Your task to perform on an android device: Do I have any events this weekend? Image 0: 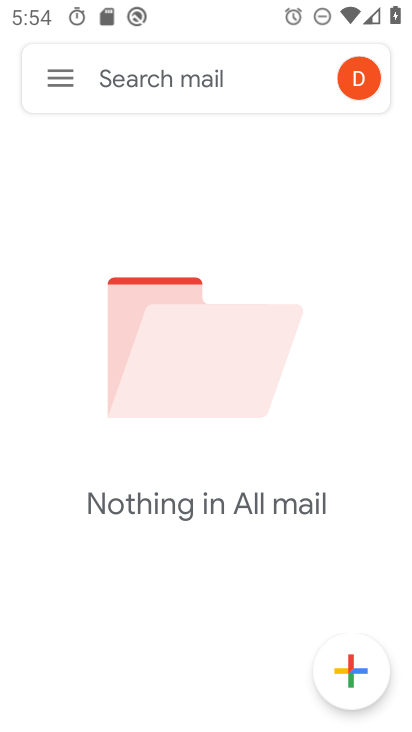
Step 0: press home button
Your task to perform on an android device: Do I have any events this weekend? Image 1: 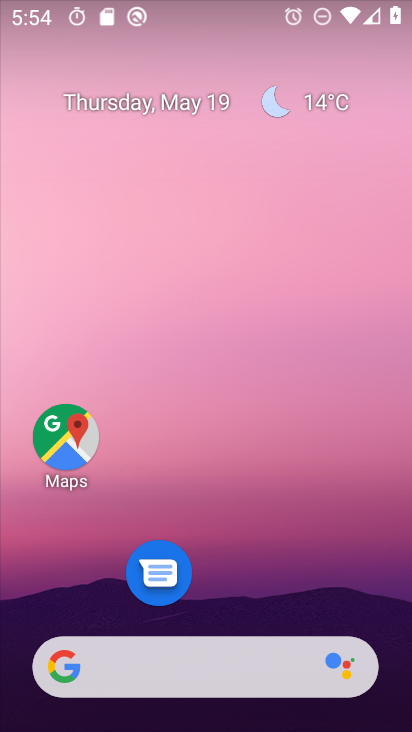
Step 1: drag from (249, 599) to (188, 225)
Your task to perform on an android device: Do I have any events this weekend? Image 2: 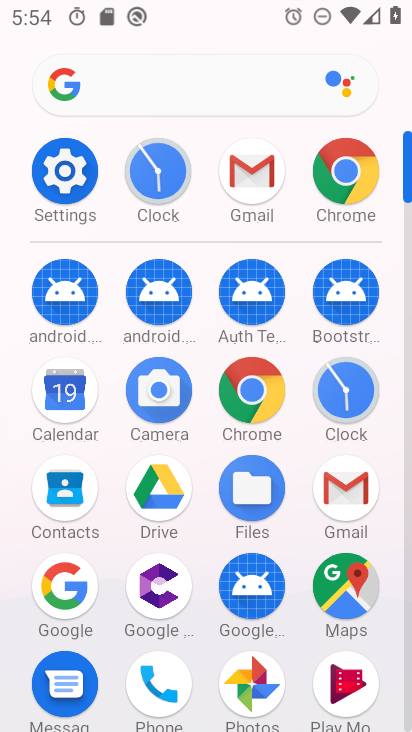
Step 2: click (66, 430)
Your task to perform on an android device: Do I have any events this weekend? Image 3: 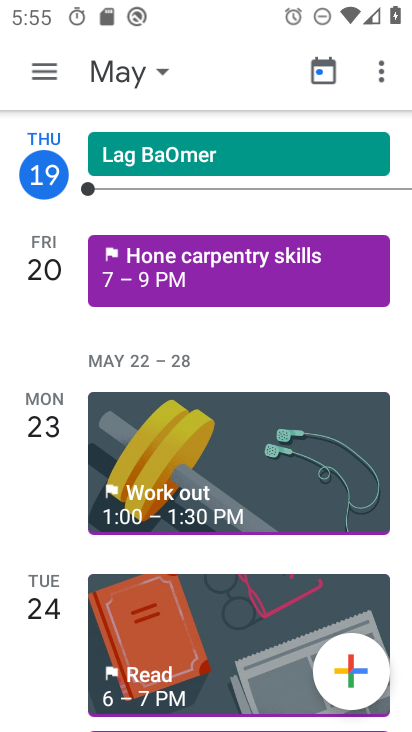
Step 3: click (45, 83)
Your task to perform on an android device: Do I have any events this weekend? Image 4: 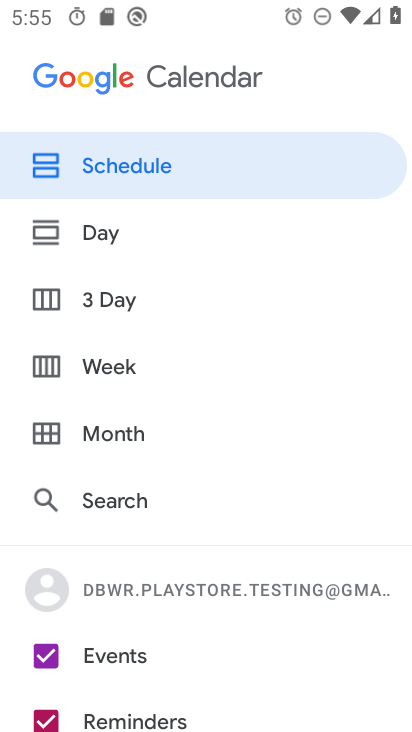
Step 4: click (119, 375)
Your task to perform on an android device: Do I have any events this weekend? Image 5: 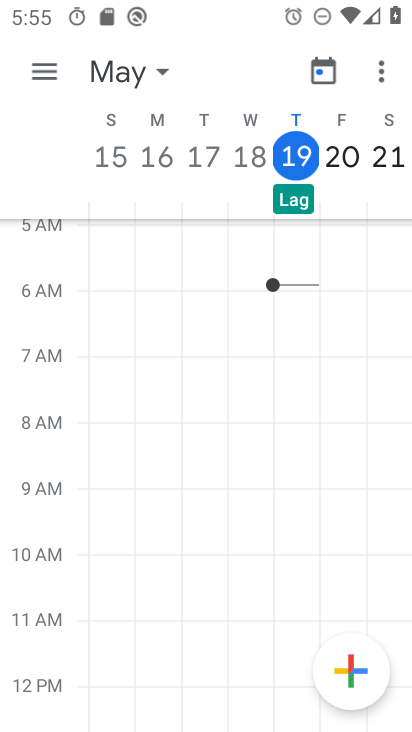
Step 5: click (113, 78)
Your task to perform on an android device: Do I have any events this weekend? Image 6: 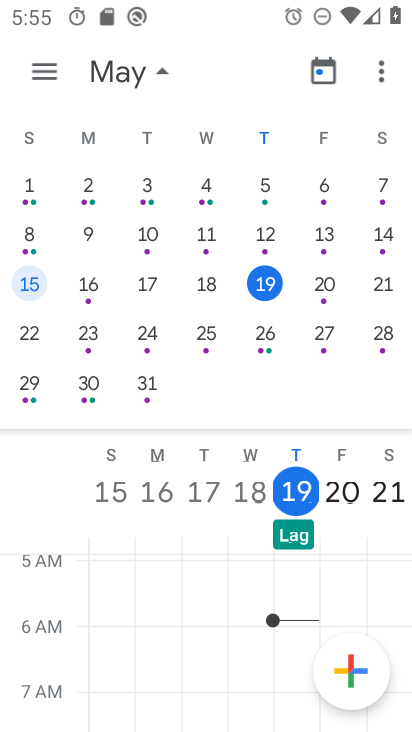
Step 6: task complete